Your task to perform on an android device: Show me recent news Image 0: 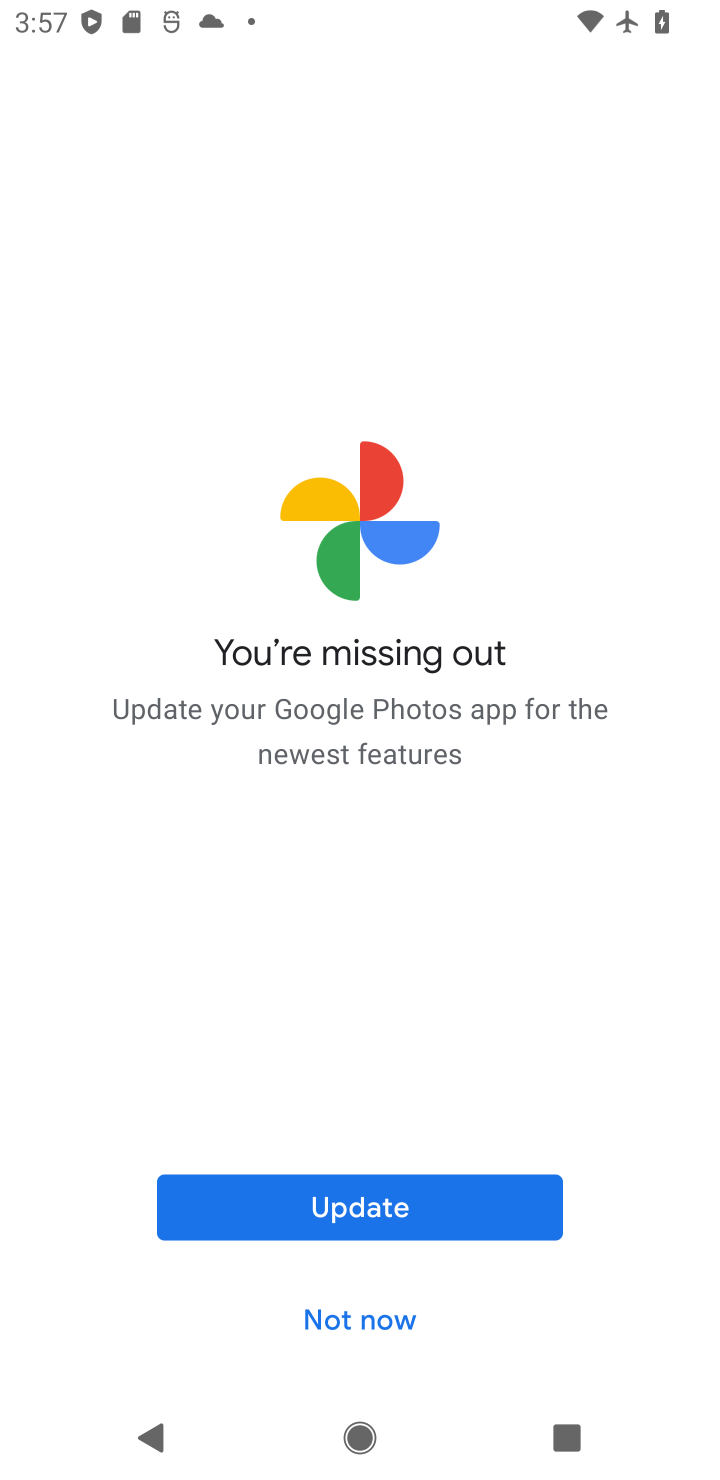
Step 0: press home button
Your task to perform on an android device: Show me recent news Image 1: 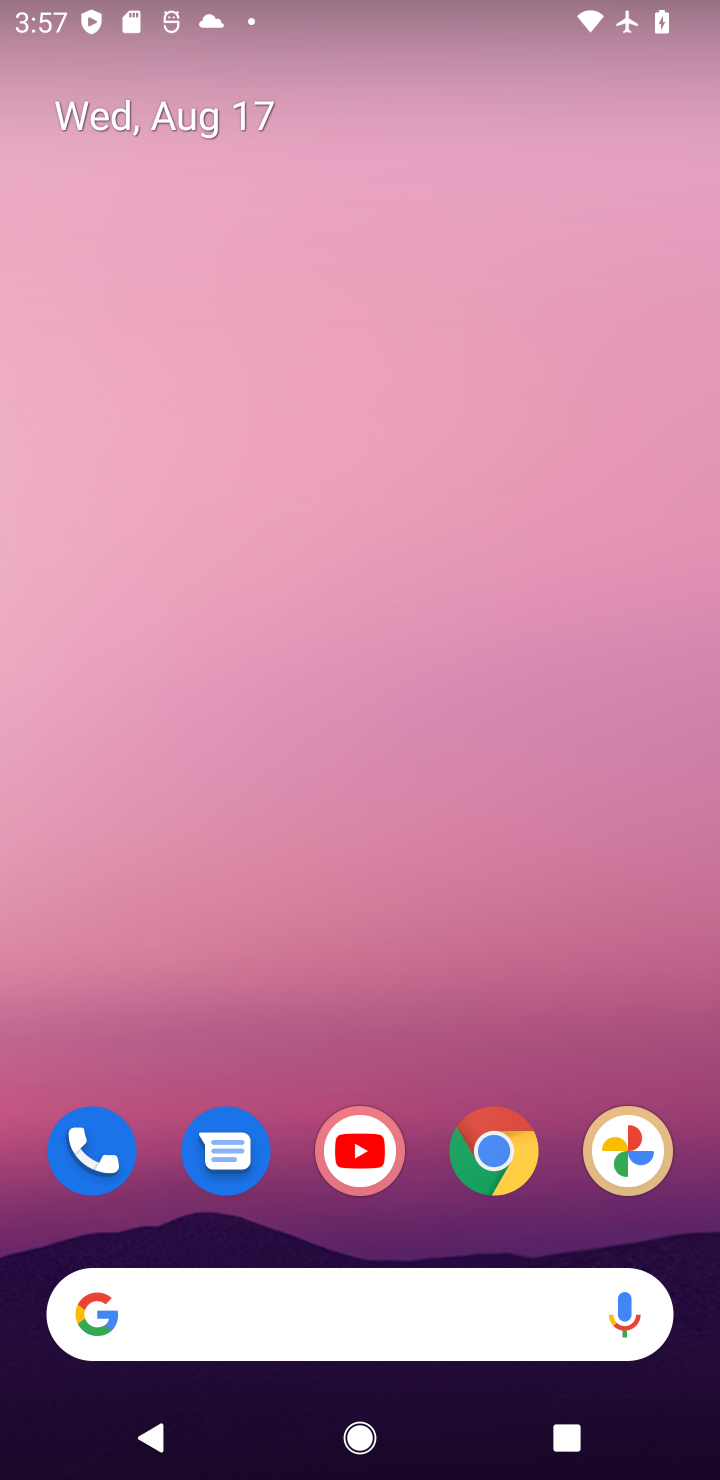
Step 1: drag from (231, 1278) to (265, 120)
Your task to perform on an android device: Show me recent news Image 2: 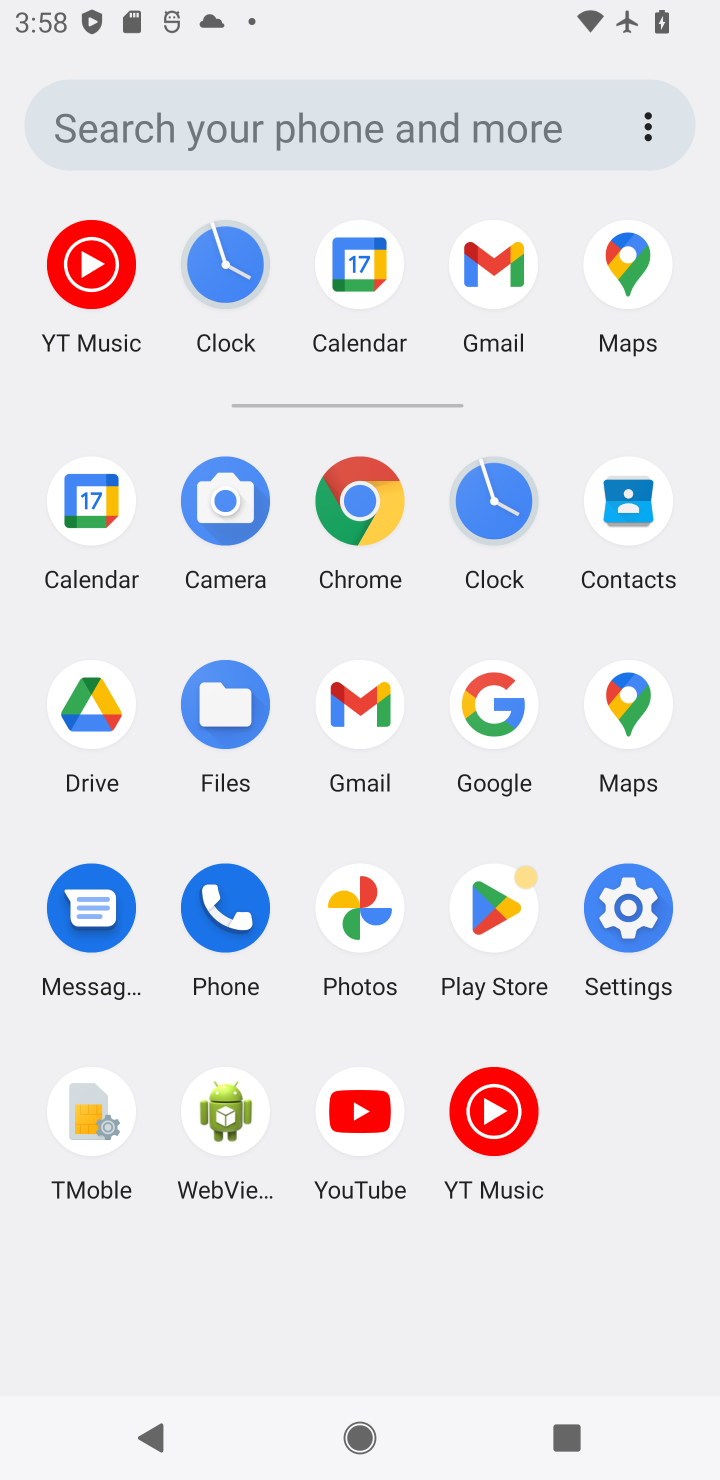
Step 2: click (357, 497)
Your task to perform on an android device: Show me recent news Image 3: 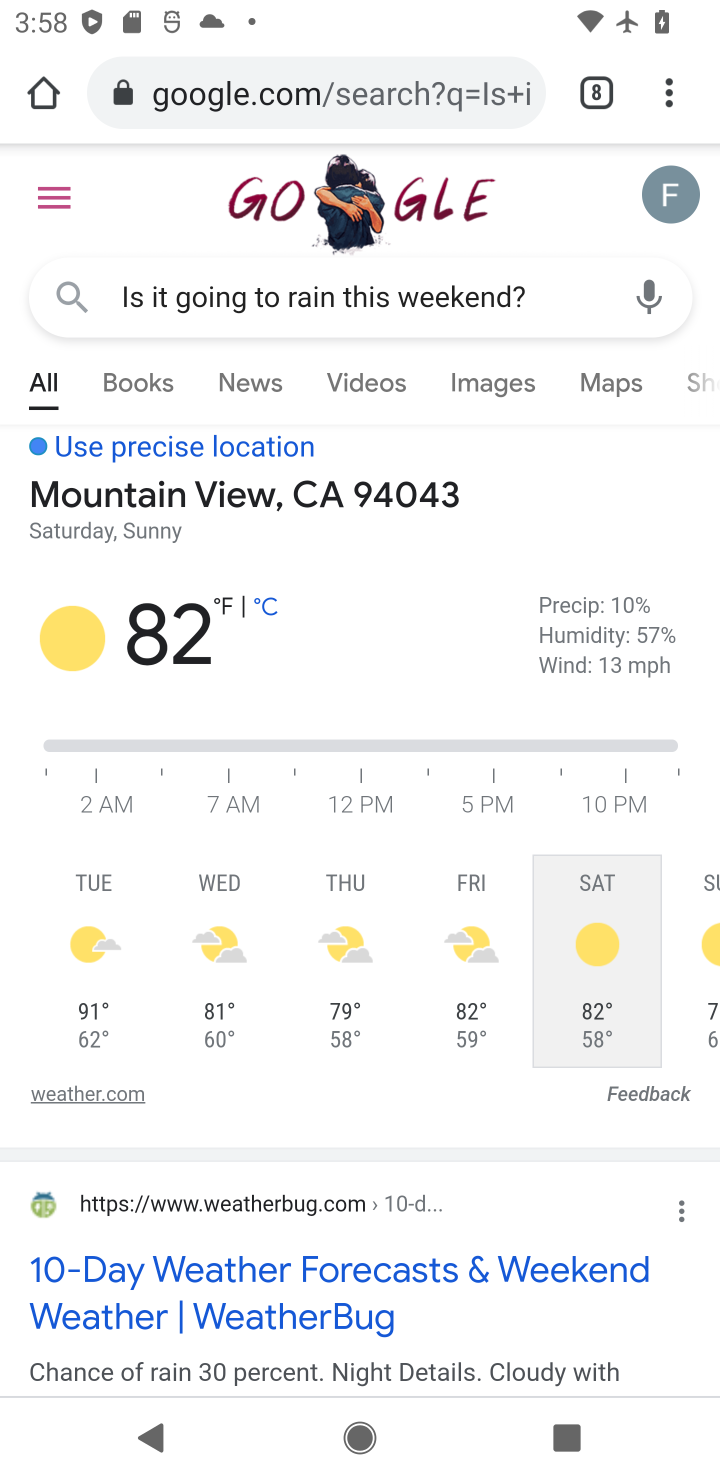
Step 3: click (688, 88)
Your task to perform on an android device: Show me recent news Image 4: 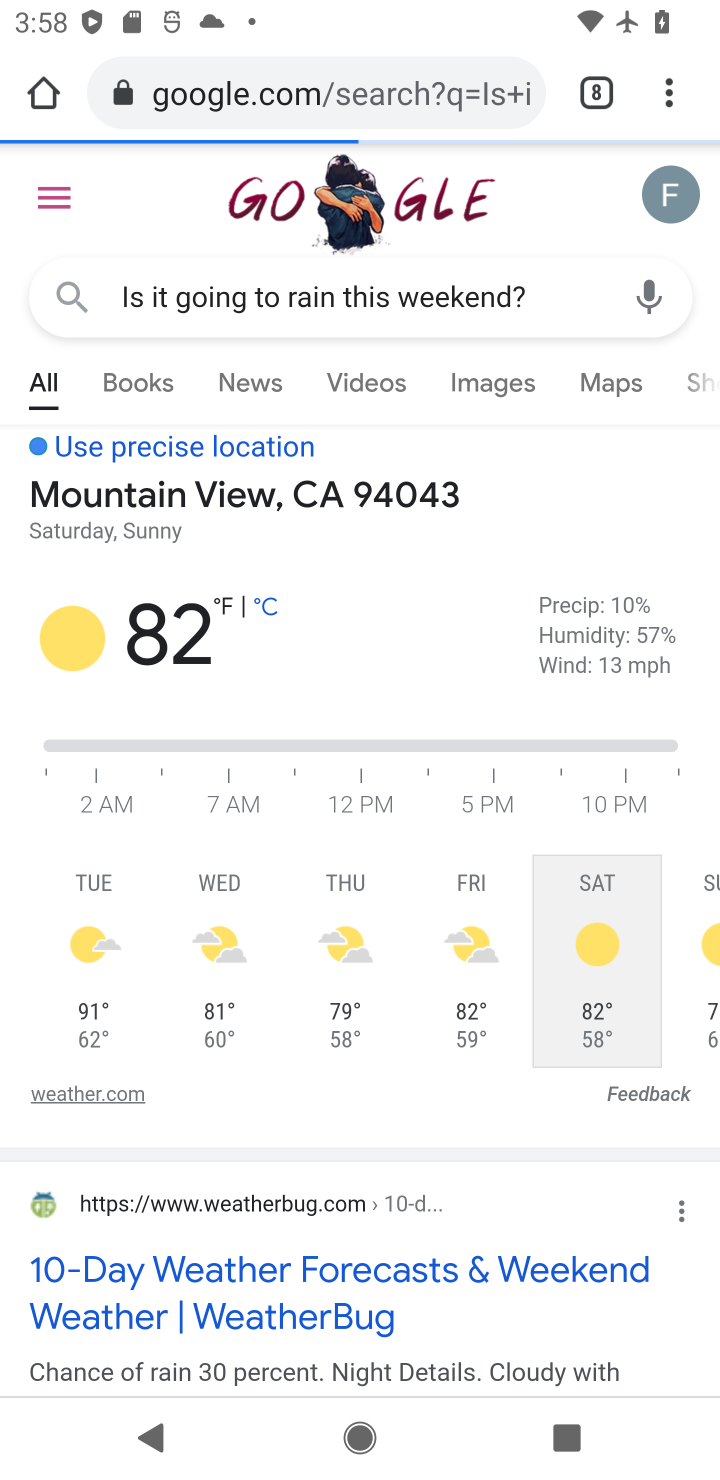
Step 4: click (675, 80)
Your task to perform on an android device: Show me recent news Image 5: 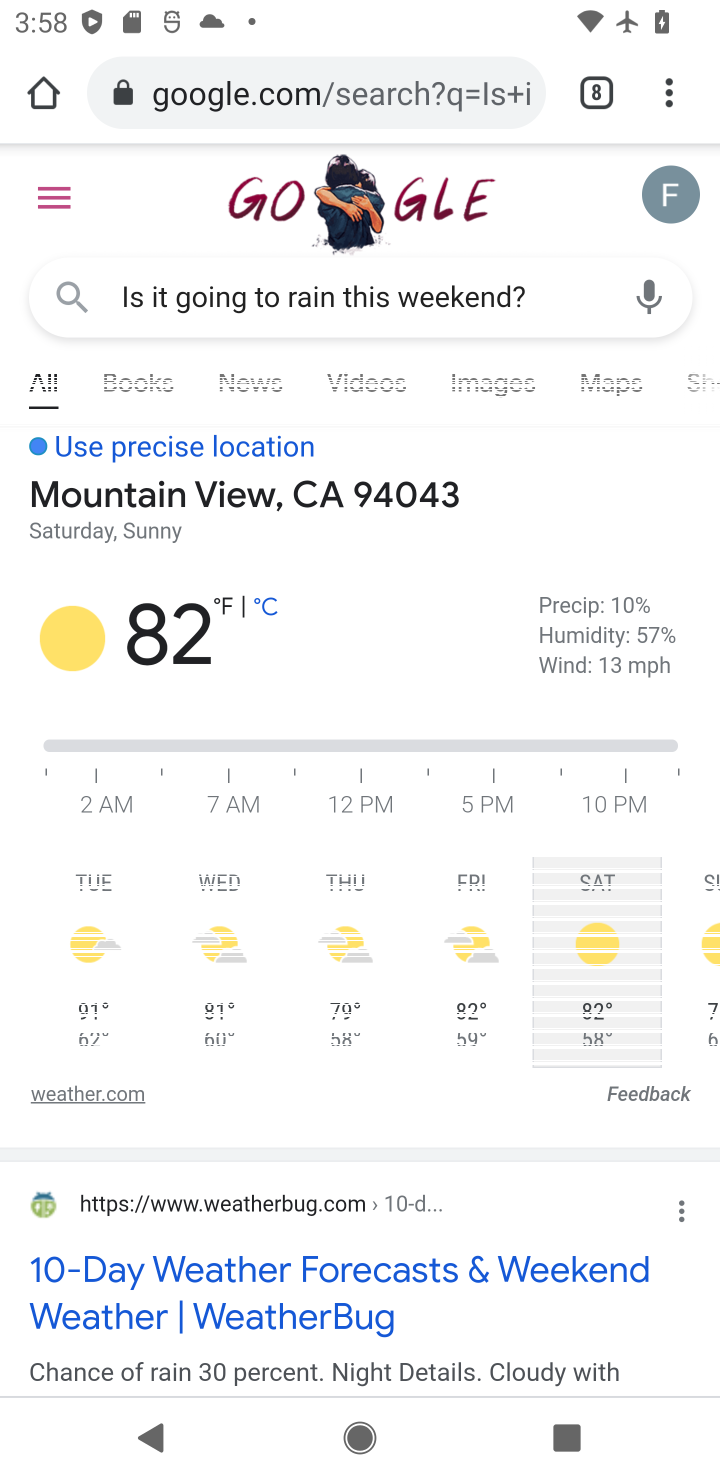
Step 5: click (675, 89)
Your task to perform on an android device: Show me recent news Image 6: 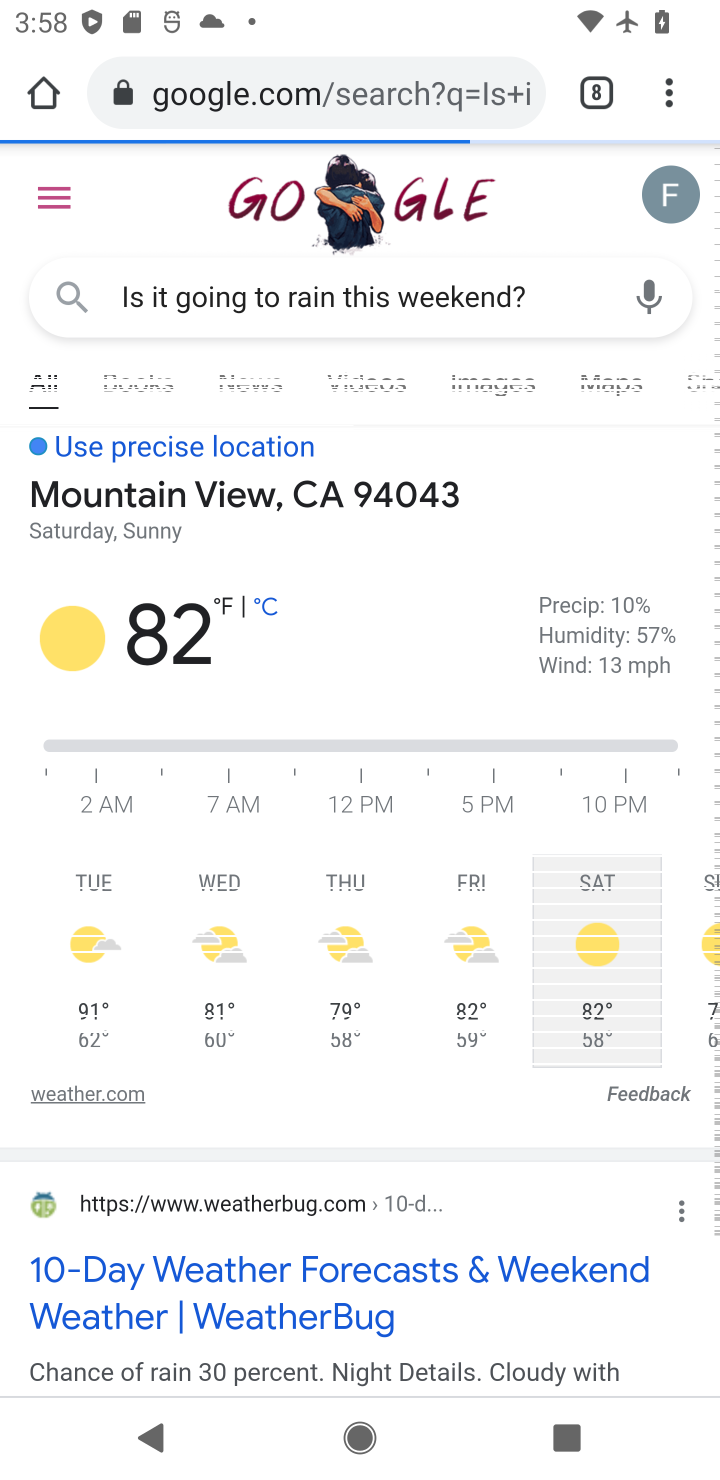
Step 6: click (675, 89)
Your task to perform on an android device: Show me recent news Image 7: 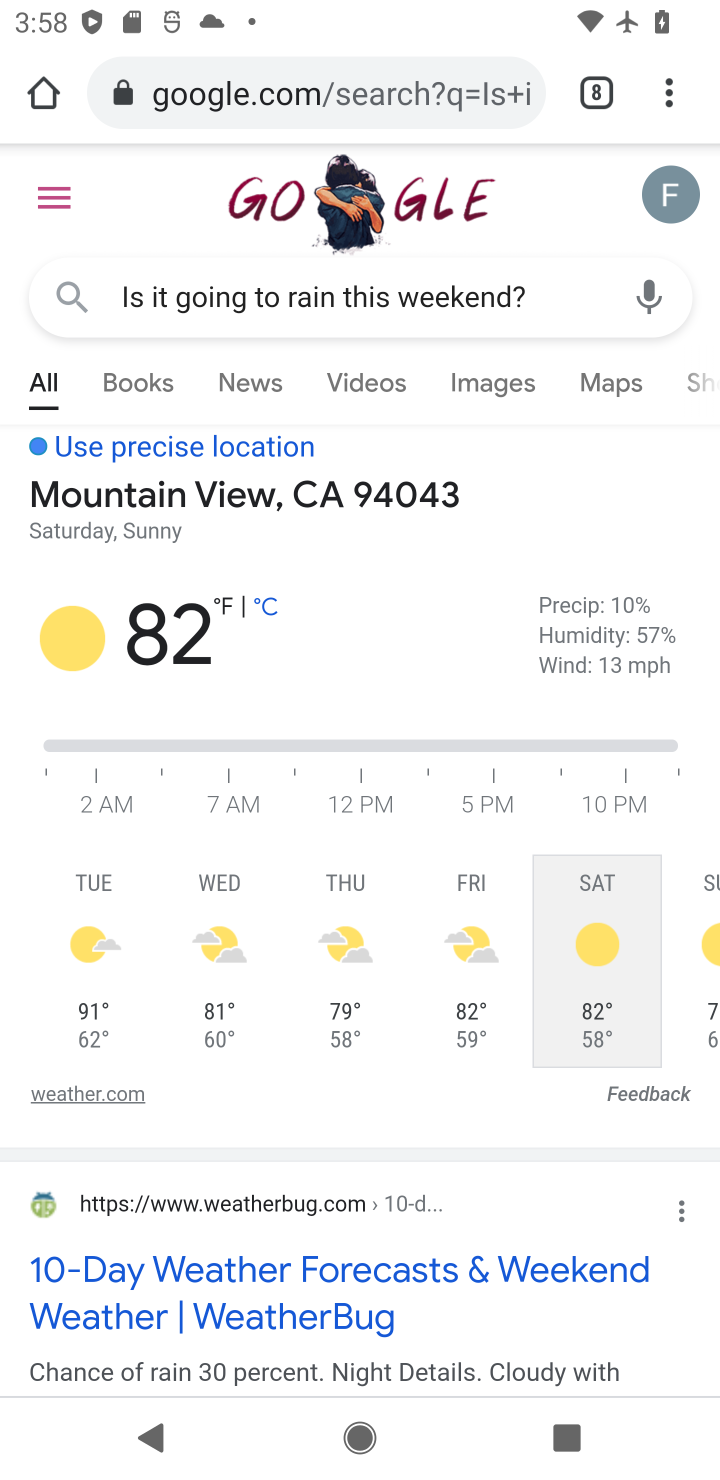
Step 7: click (651, 97)
Your task to perform on an android device: Show me recent news Image 8: 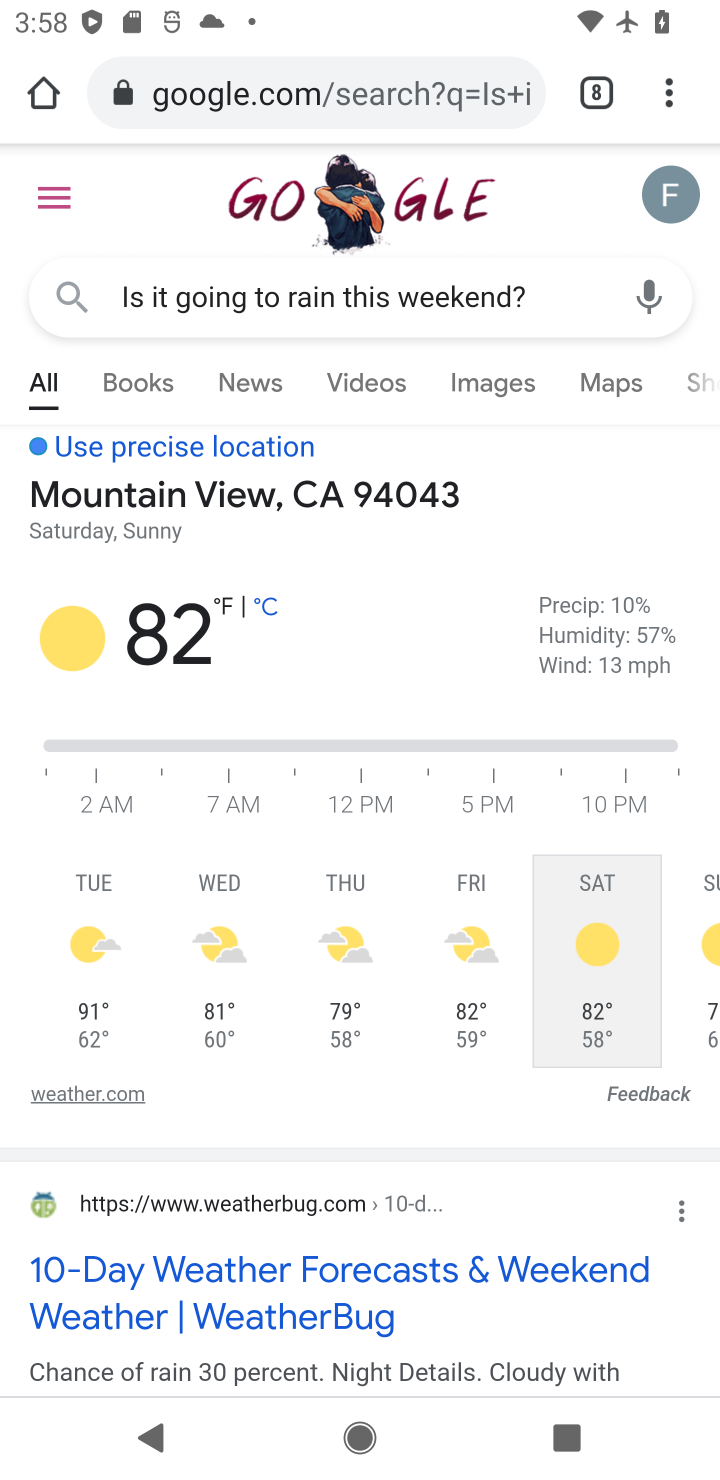
Step 8: click (668, 87)
Your task to perform on an android device: Show me recent news Image 9: 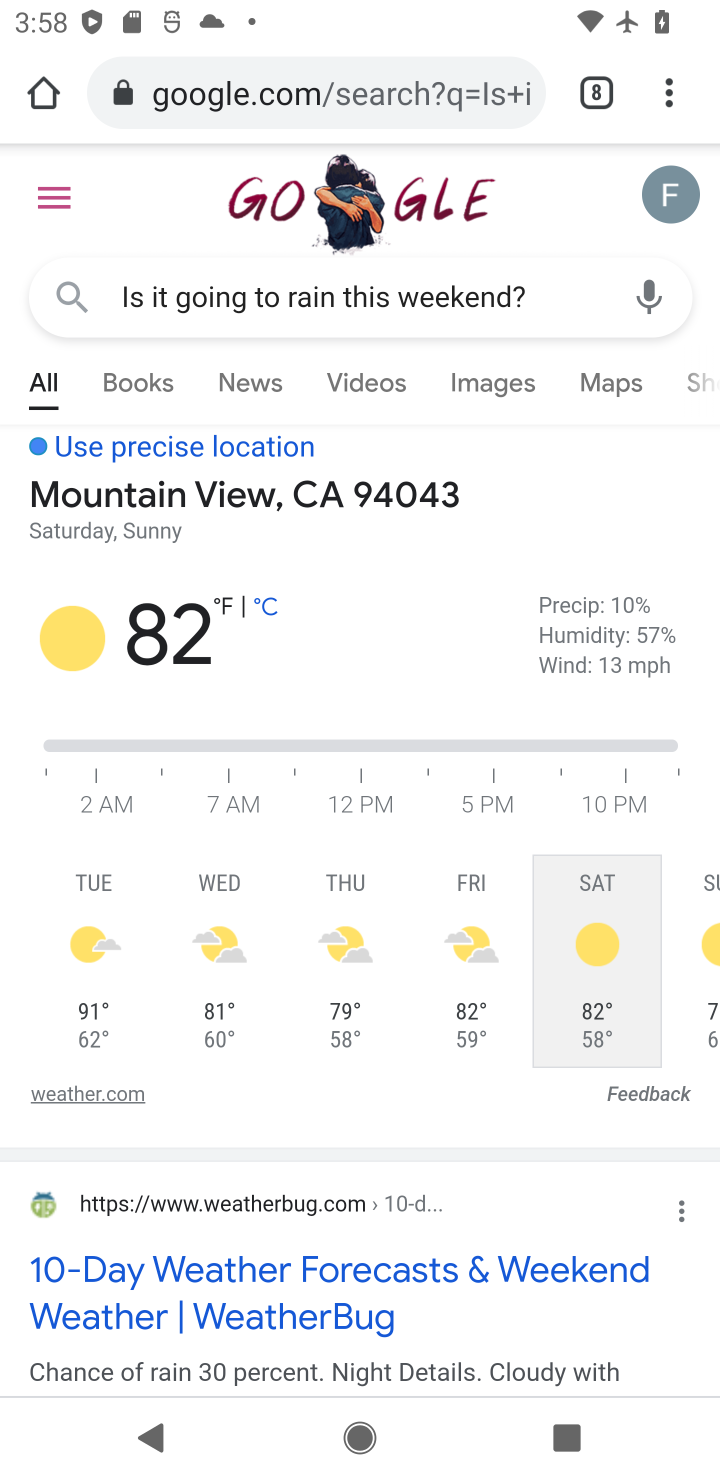
Step 9: click (668, 87)
Your task to perform on an android device: Show me recent news Image 10: 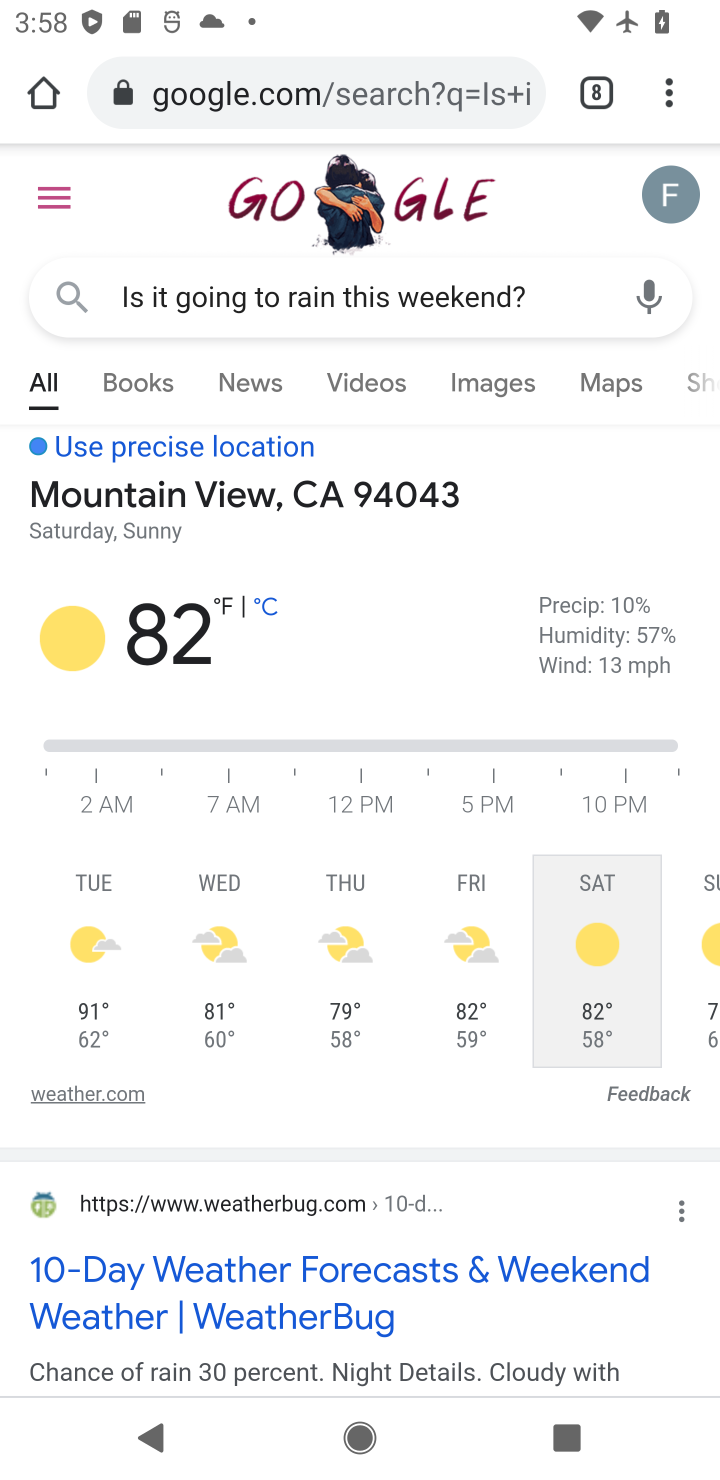
Step 10: click (641, 83)
Your task to perform on an android device: Show me recent news Image 11: 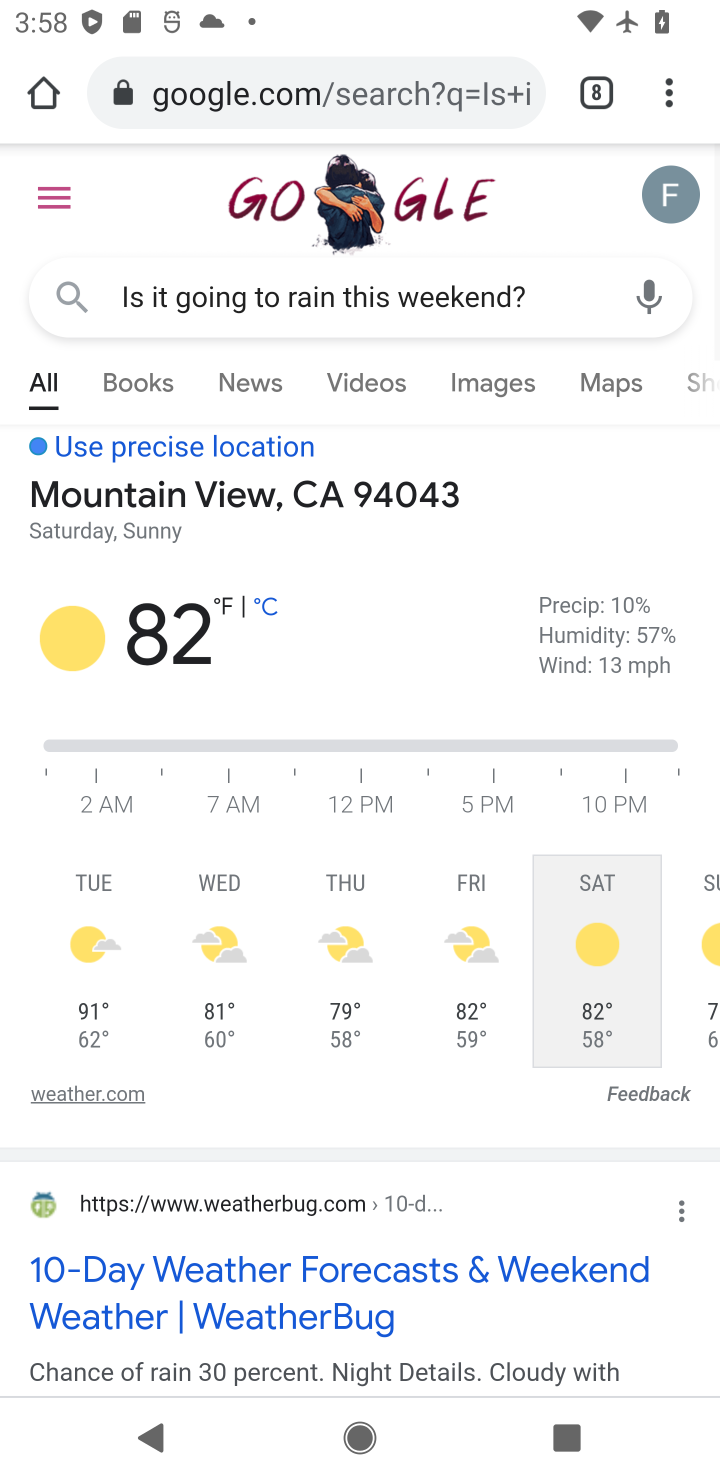
Step 11: click (641, 83)
Your task to perform on an android device: Show me recent news Image 12: 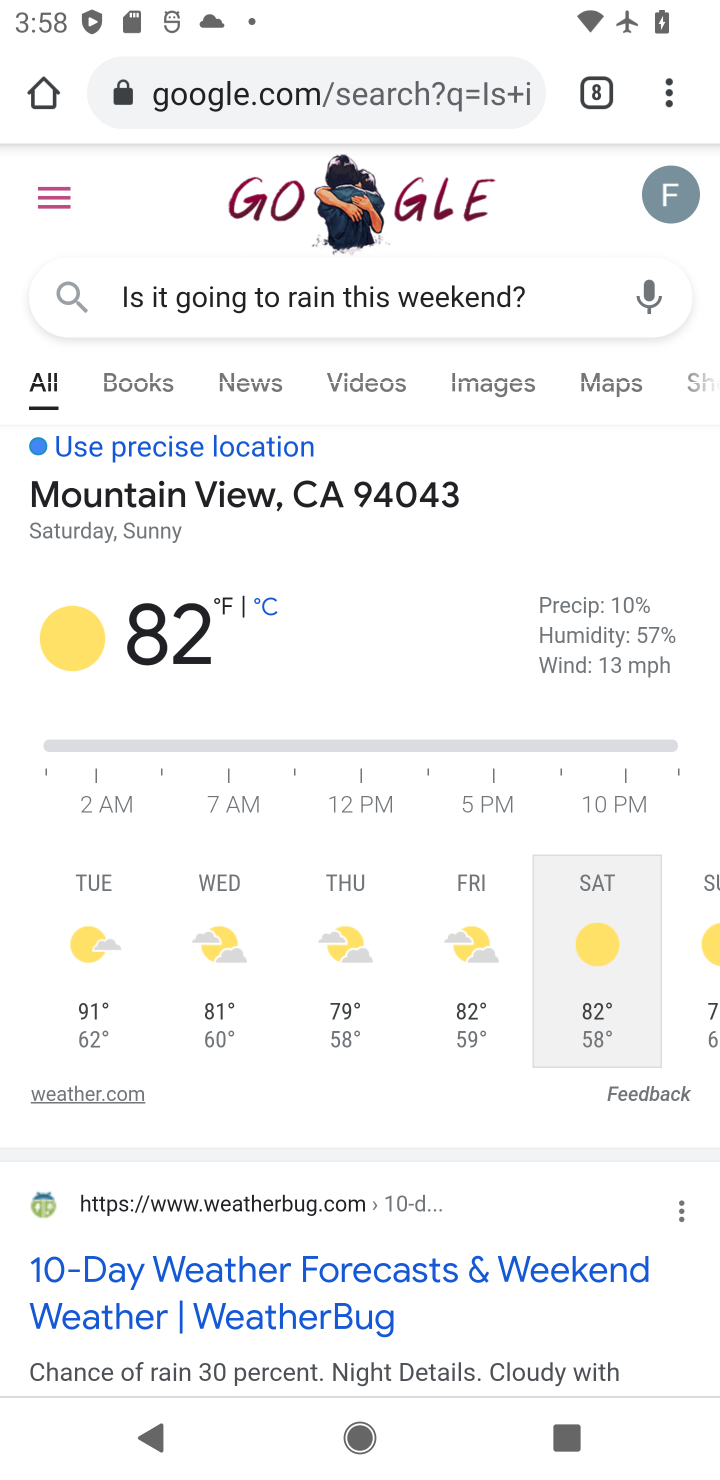
Step 12: task complete